Your task to perform on an android device: toggle airplane mode Image 0: 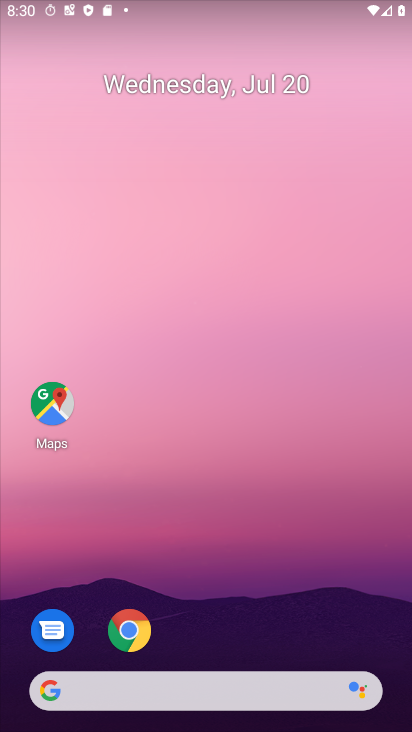
Step 0: drag from (197, 662) to (233, 230)
Your task to perform on an android device: toggle airplane mode Image 1: 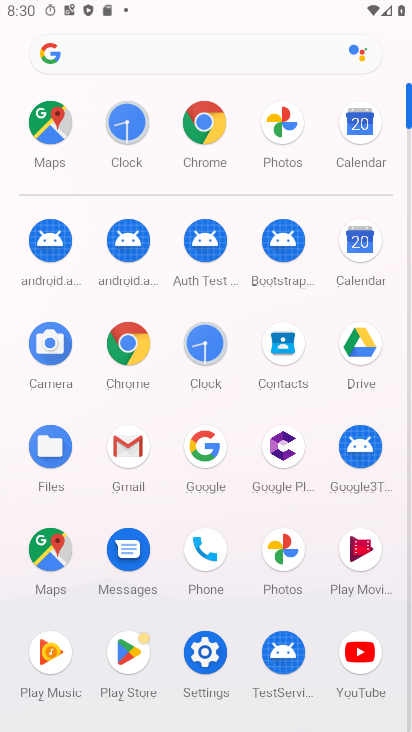
Step 1: click (206, 655)
Your task to perform on an android device: toggle airplane mode Image 2: 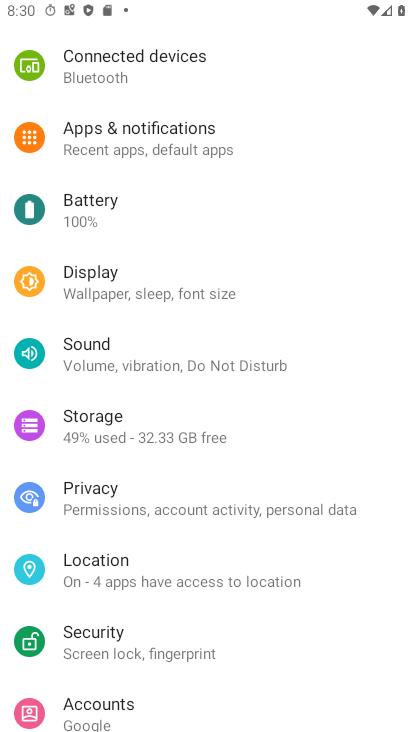
Step 2: drag from (210, 349) to (193, 714)
Your task to perform on an android device: toggle airplane mode Image 3: 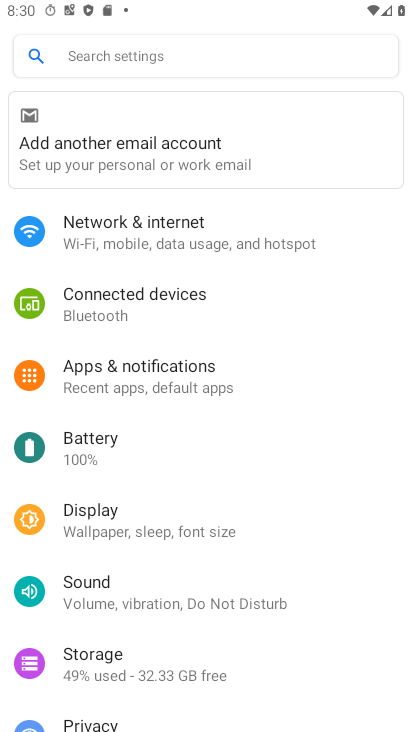
Step 3: drag from (212, 290) to (165, 642)
Your task to perform on an android device: toggle airplane mode Image 4: 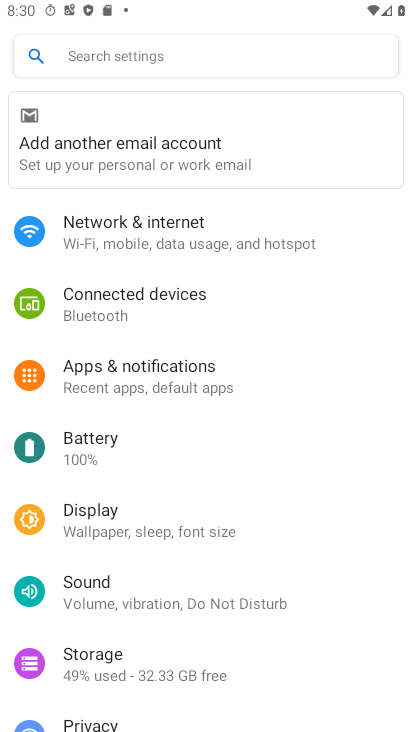
Step 4: click (218, 239)
Your task to perform on an android device: toggle airplane mode Image 5: 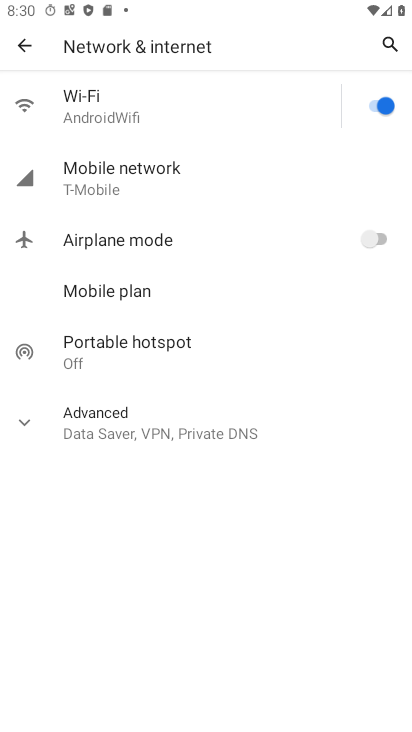
Step 5: click (293, 245)
Your task to perform on an android device: toggle airplane mode Image 6: 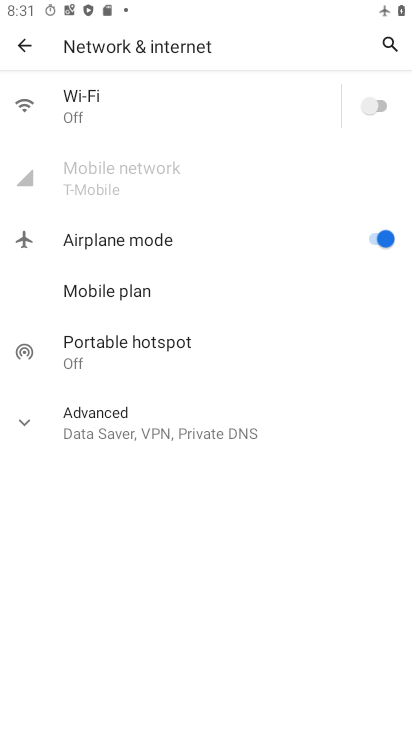
Step 6: task complete